Your task to perform on an android device: turn off picture-in-picture Image 0: 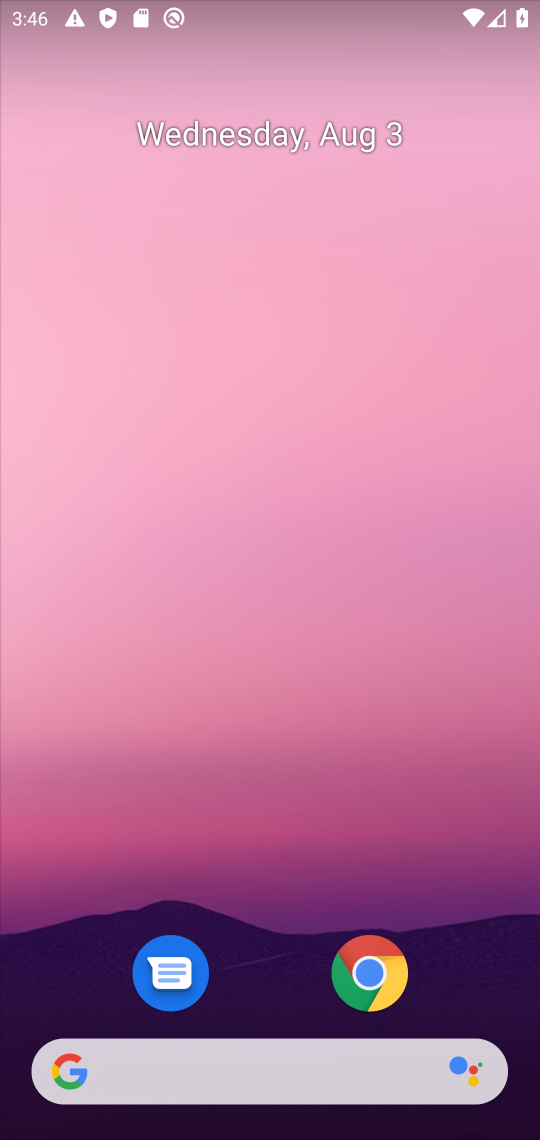
Step 0: click (368, 967)
Your task to perform on an android device: turn off picture-in-picture Image 1: 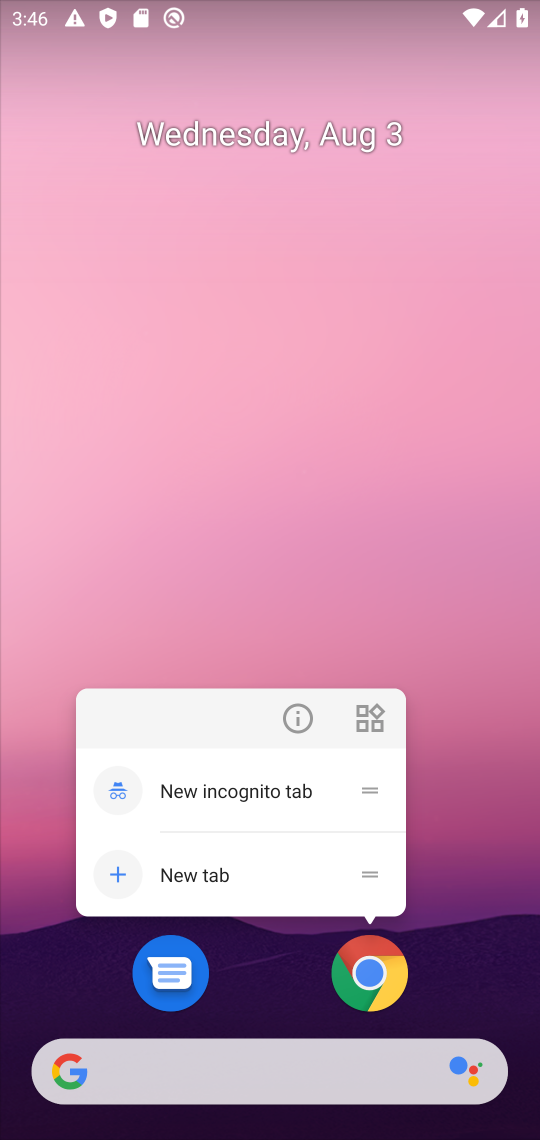
Step 1: click (293, 713)
Your task to perform on an android device: turn off picture-in-picture Image 2: 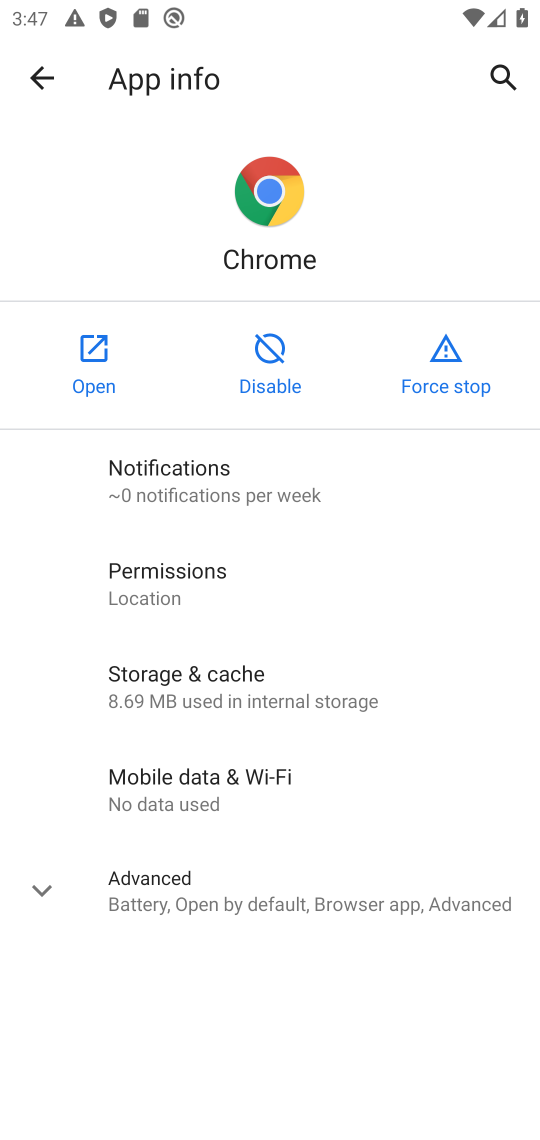
Step 2: click (34, 887)
Your task to perform on an android device: turn off picture-in-picture Image 3: 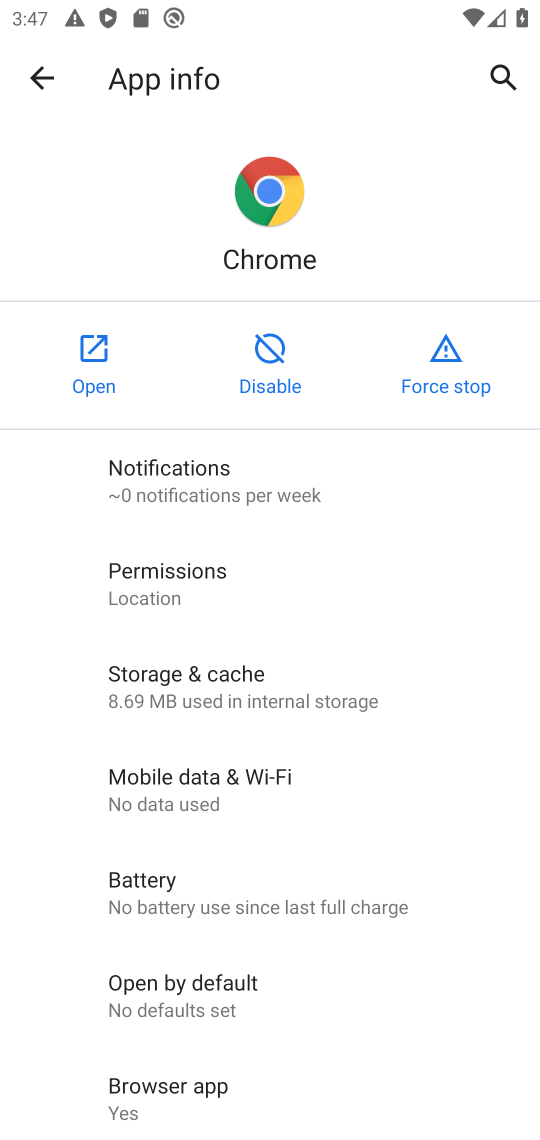
Step 3: drag from (327, 854) to (286, 322)
Your task to perform on an android device: turn off picture-in-picture Image 4: 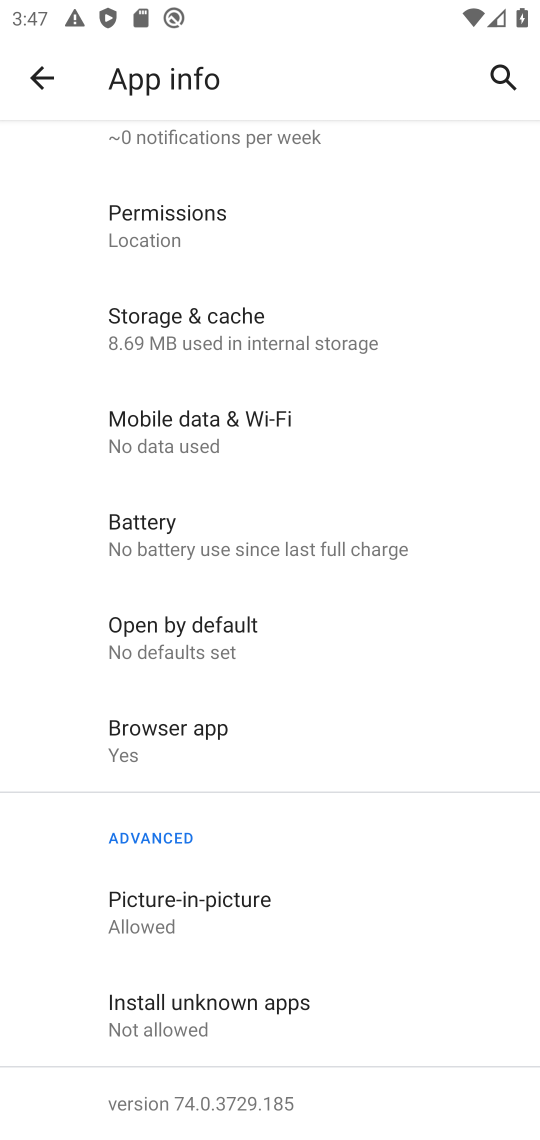
Step 4: click (197, 909)
Your task to perform on an android device: turn off picture-in-picture Image 5: 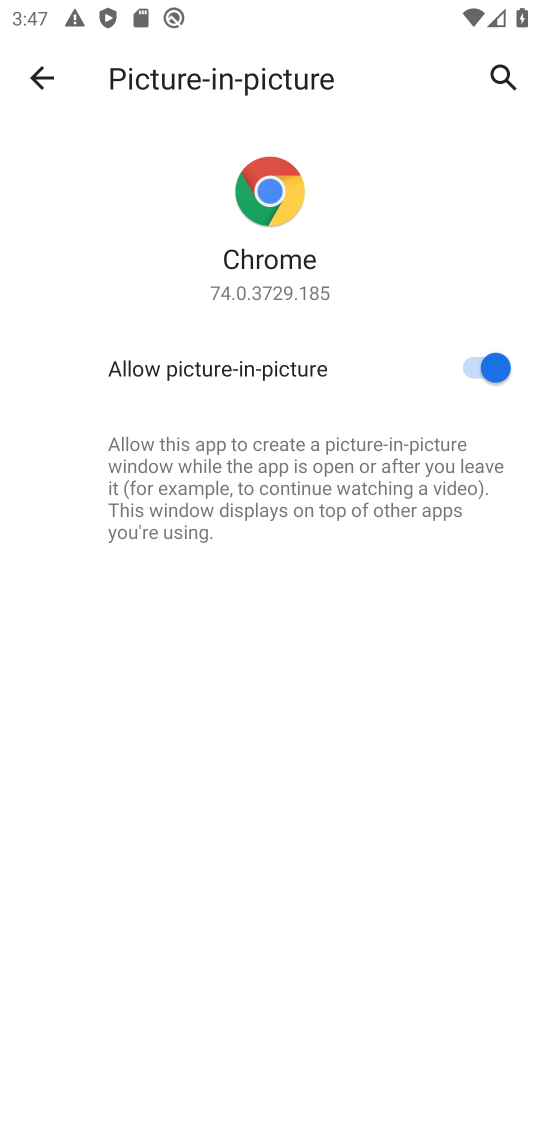
Step 5: click (481, 352)
Your task to perform on an android device: turn off picture-in-picture Image 6: 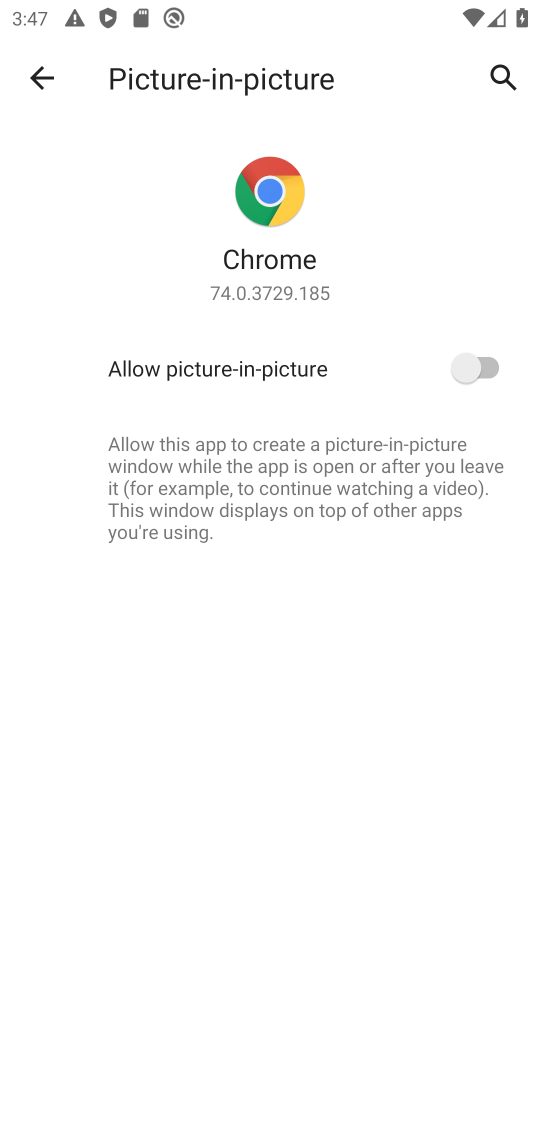
Step 6: task complete